Your task to perform on an android device: open app "Facebook Lite" (install if not already installed) and enter user name: "suppers@inbox.com" and password: "downplayed" Image 0: 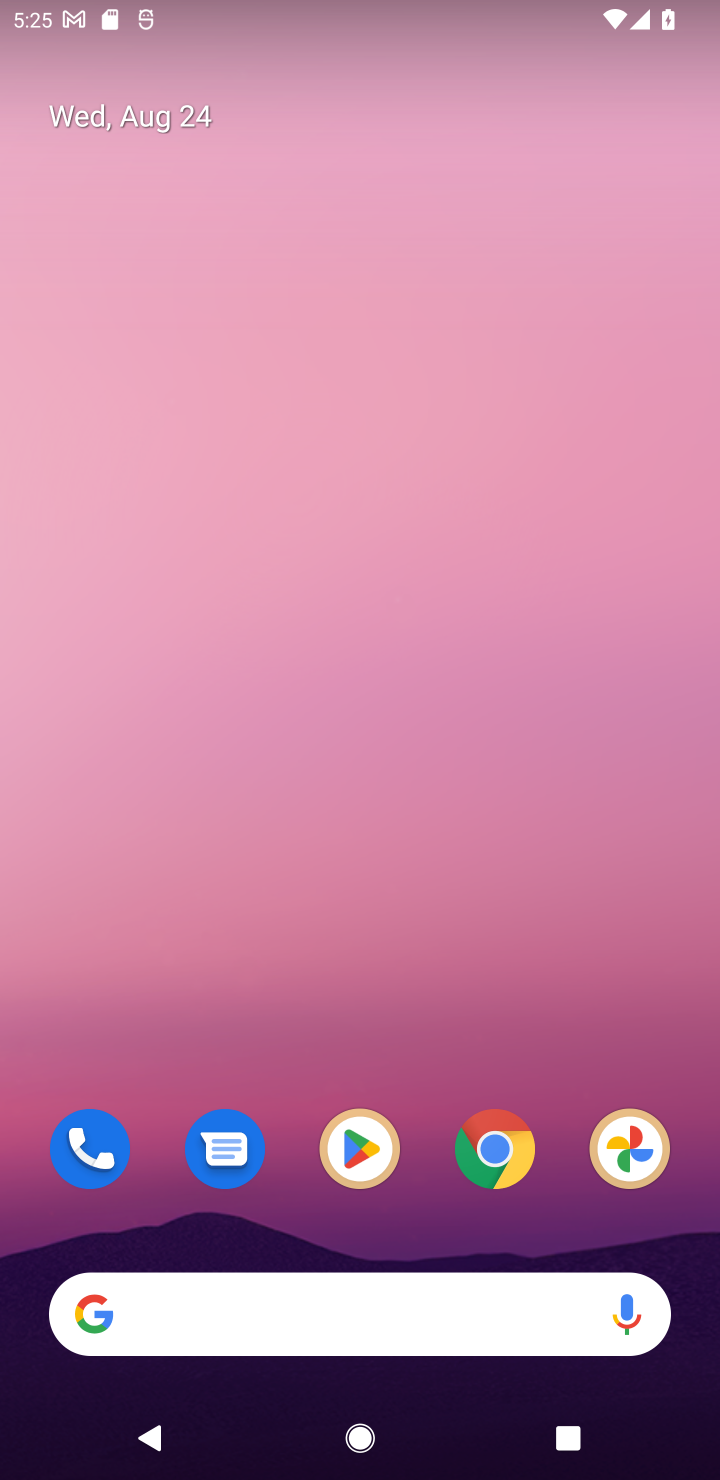
Step 0: press home button
Your task to perform on an android device: open app "Facebook Lite" (install if not already installed) and enter user name: "suppers@inbox.com" and password: "downplayed" Image 1: 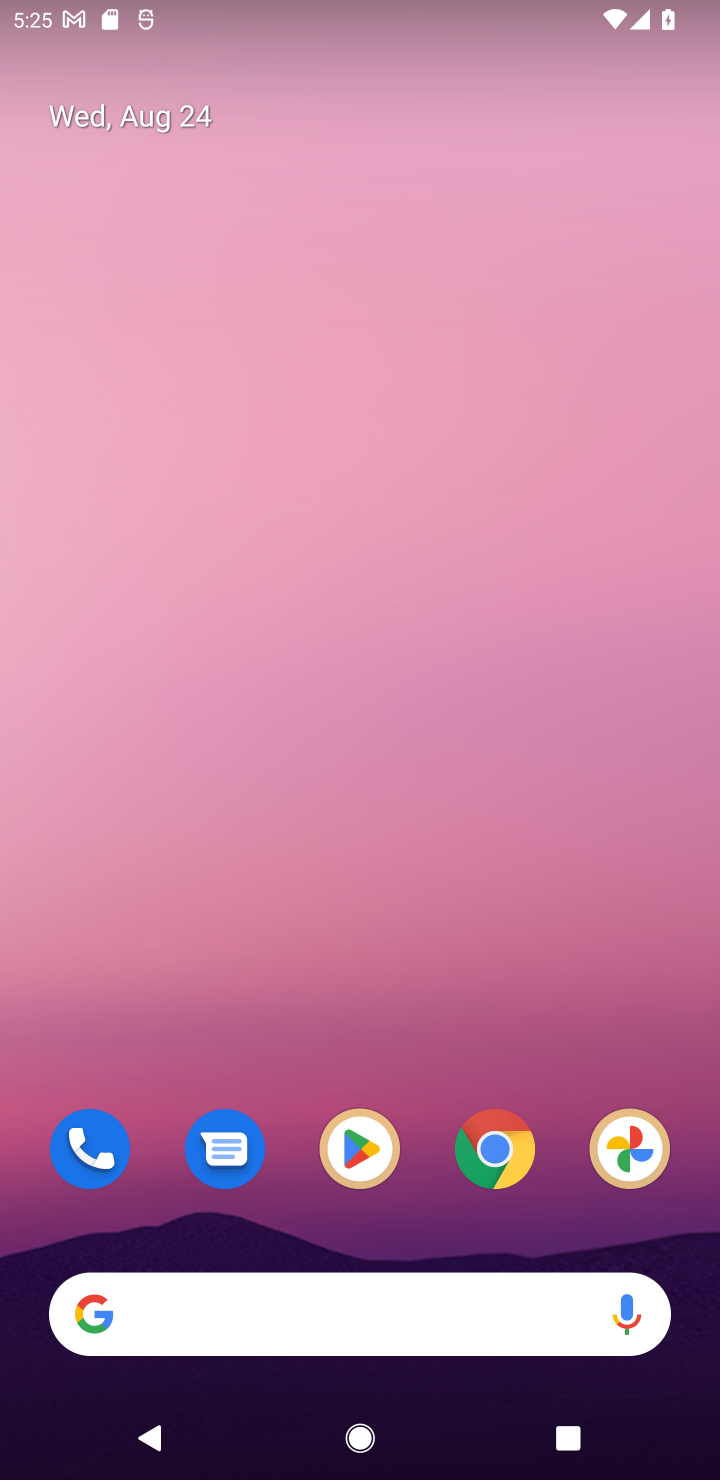
Step 1: click (363, 1155)
Your task to perform on an android device: open app "Facebook Lite" (install if not already installed) and enter user name: "suppers@inbox.com" and password: "downplayed" Image 2: 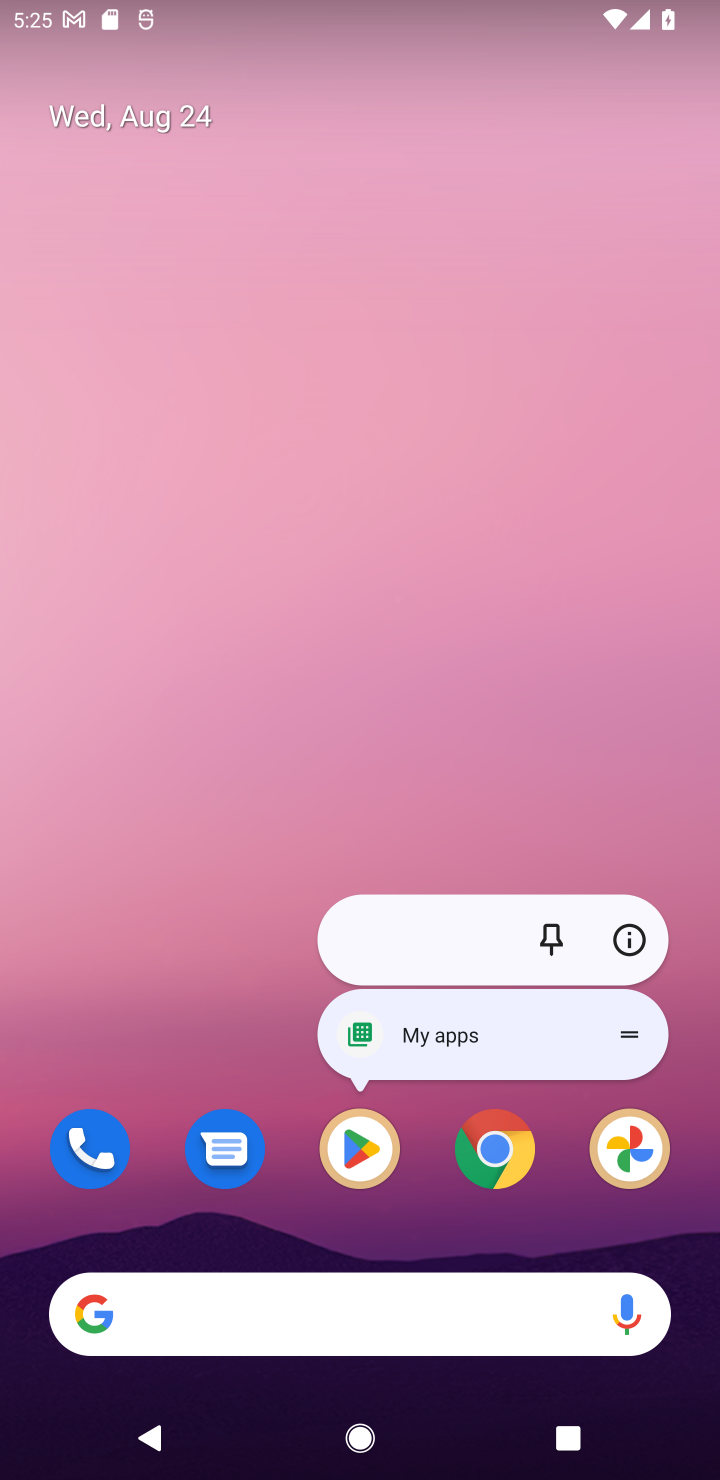
Step 2: click (365, 1150)
Your task to perform on an android device: open app "Facebook Lite" (install if not already installed) and enter user name: "suppers@inbox.com" and password: "downplayed" Image 3: 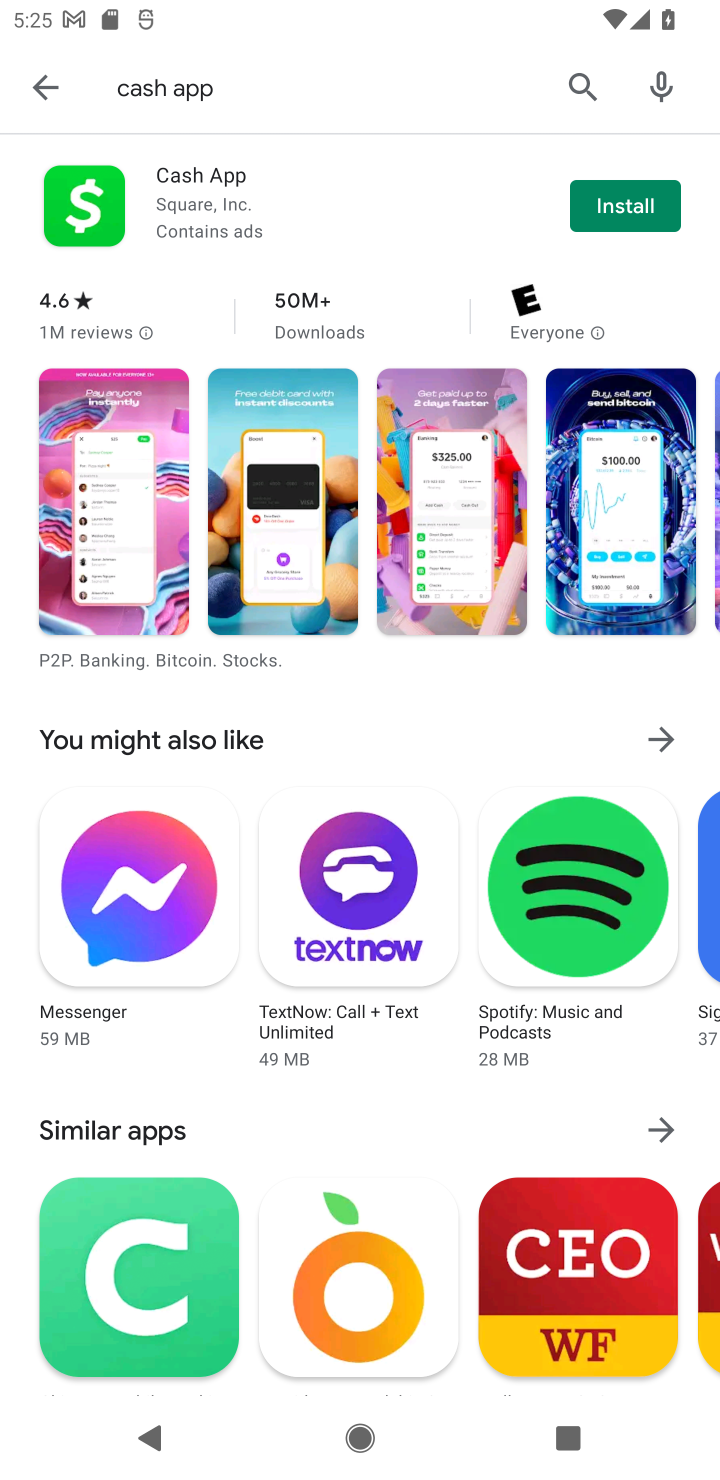
Step 3: click (584, 78)
Your task to perform on an android device: open app "Facebook Lite" (install if not already installed) and enter user name: "suppers@inbox.com" and password: "downplayed" Image 4: 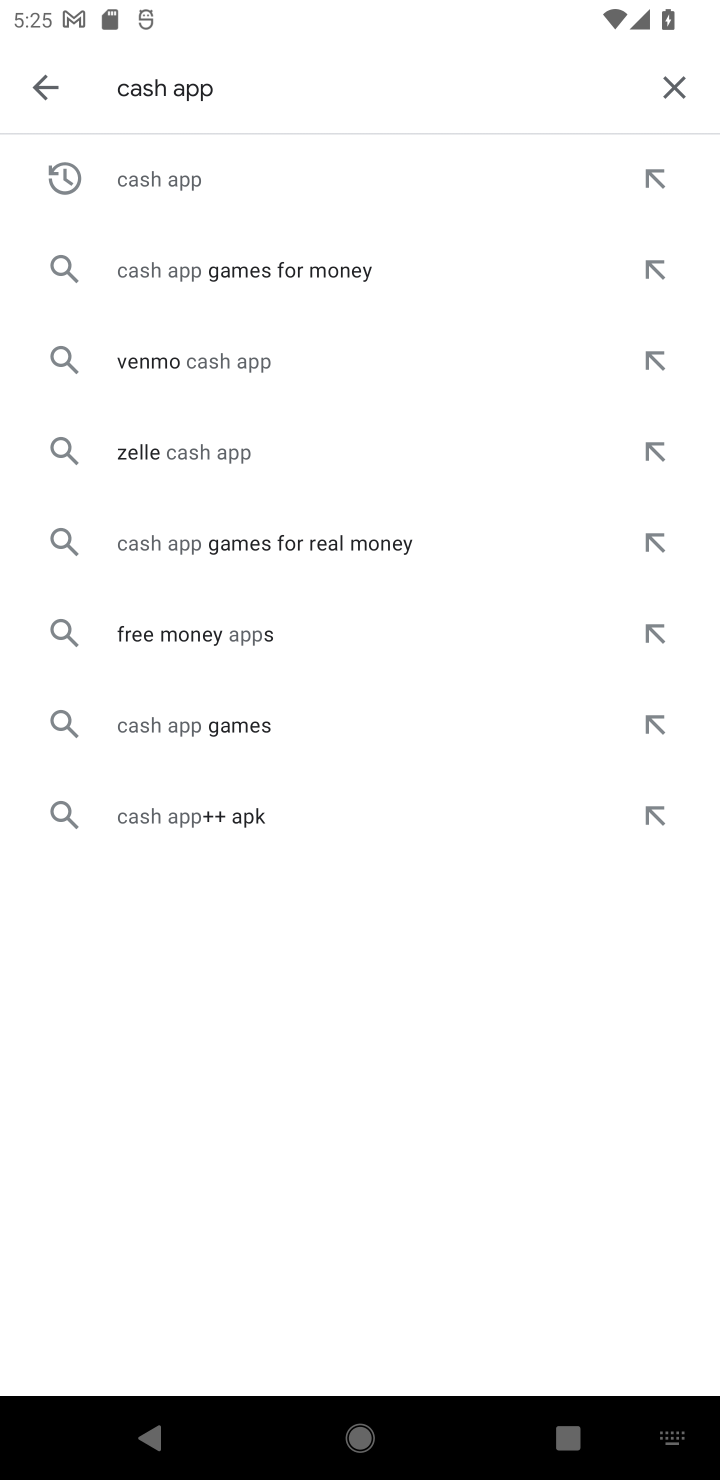
Step 4: click (680, 81)
Your task to perform on an android device: open app "Facebook Lite" (install if not already installed) and enter user name: "suppers@inbox.com" and password: "downplayed" Image 5: 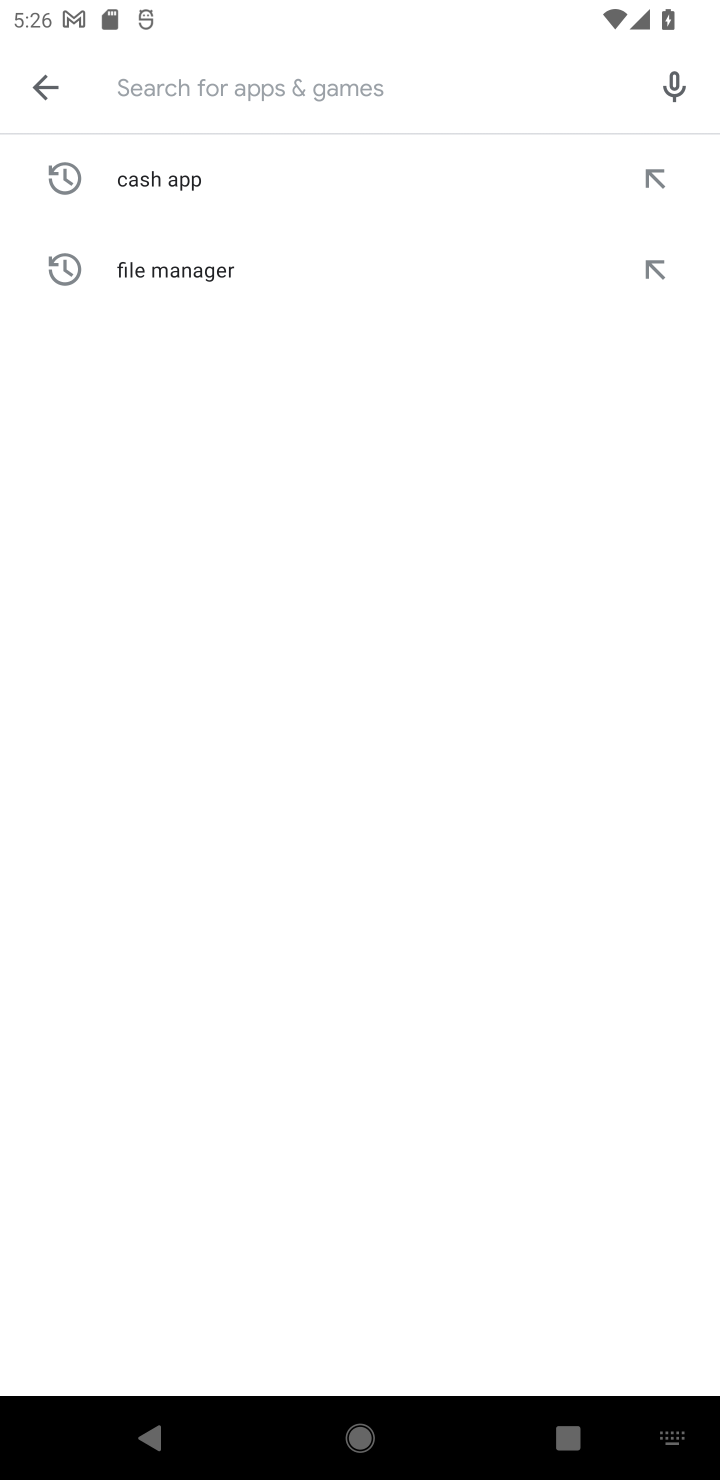
Step 5: type "Facebook Lite"
Your task to perform on an android device: open app "Facebook Lite" (install if not already installed) and enter user name: "suppers@inbox.com" and password: "downplayed" Image 6: 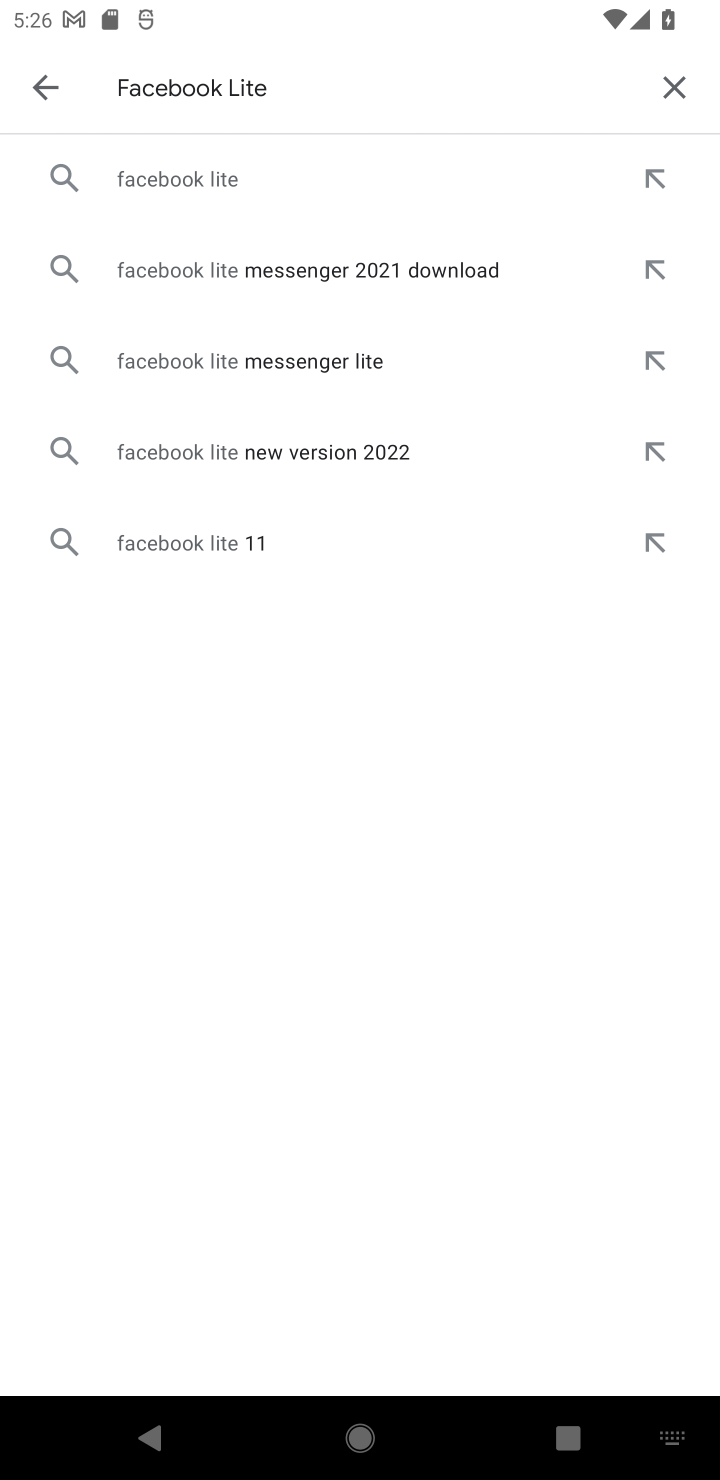
Step 6: click (217, 166)
Your task to perform on an android device: open app "Facebook Lite" (install if not already installed) and enter user name: "suppers@inbox.com" and password: "downplayed" Image 7: 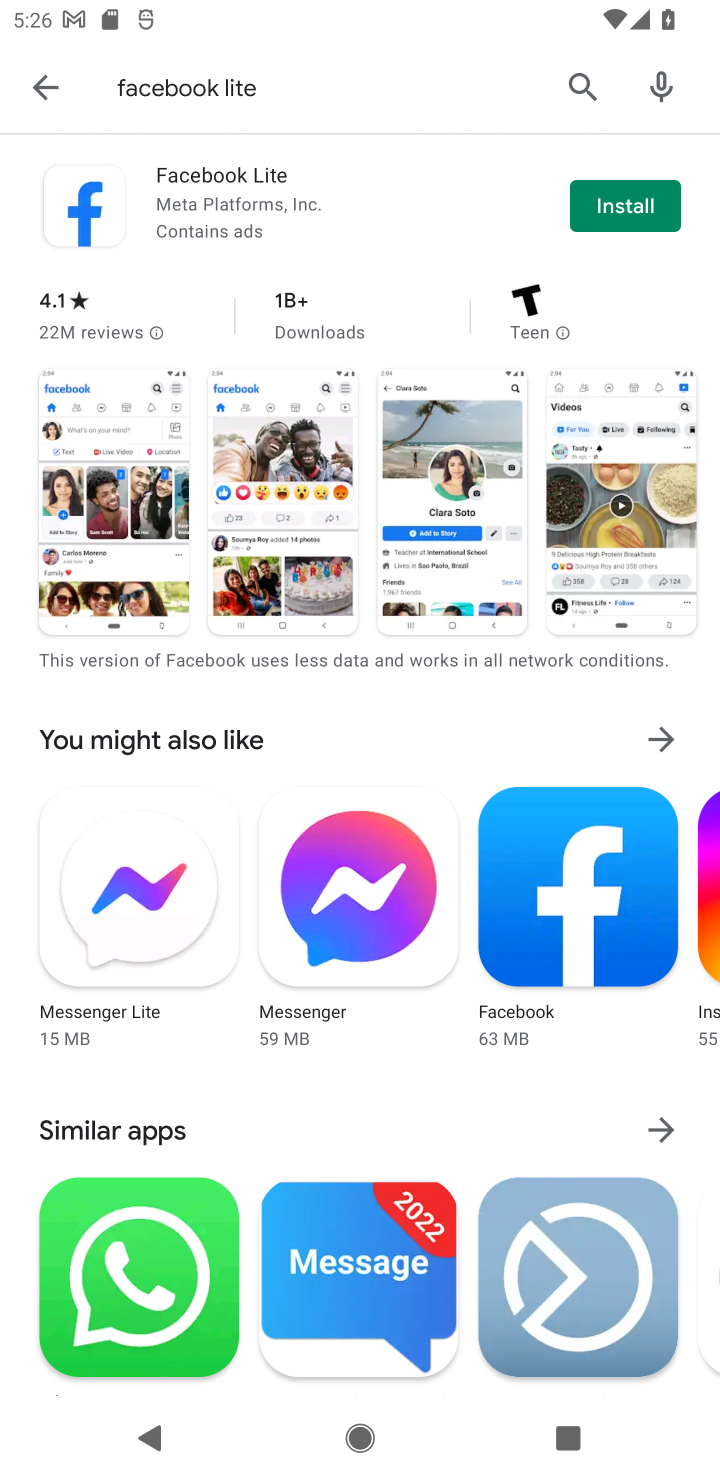
Step 7: click (610, 205)
Your task to perform on an android device: open app "Facebook Lite" (install if not already installed) and enter user name: "suppers@inbox.com" and password: "downplayed" Image 8: 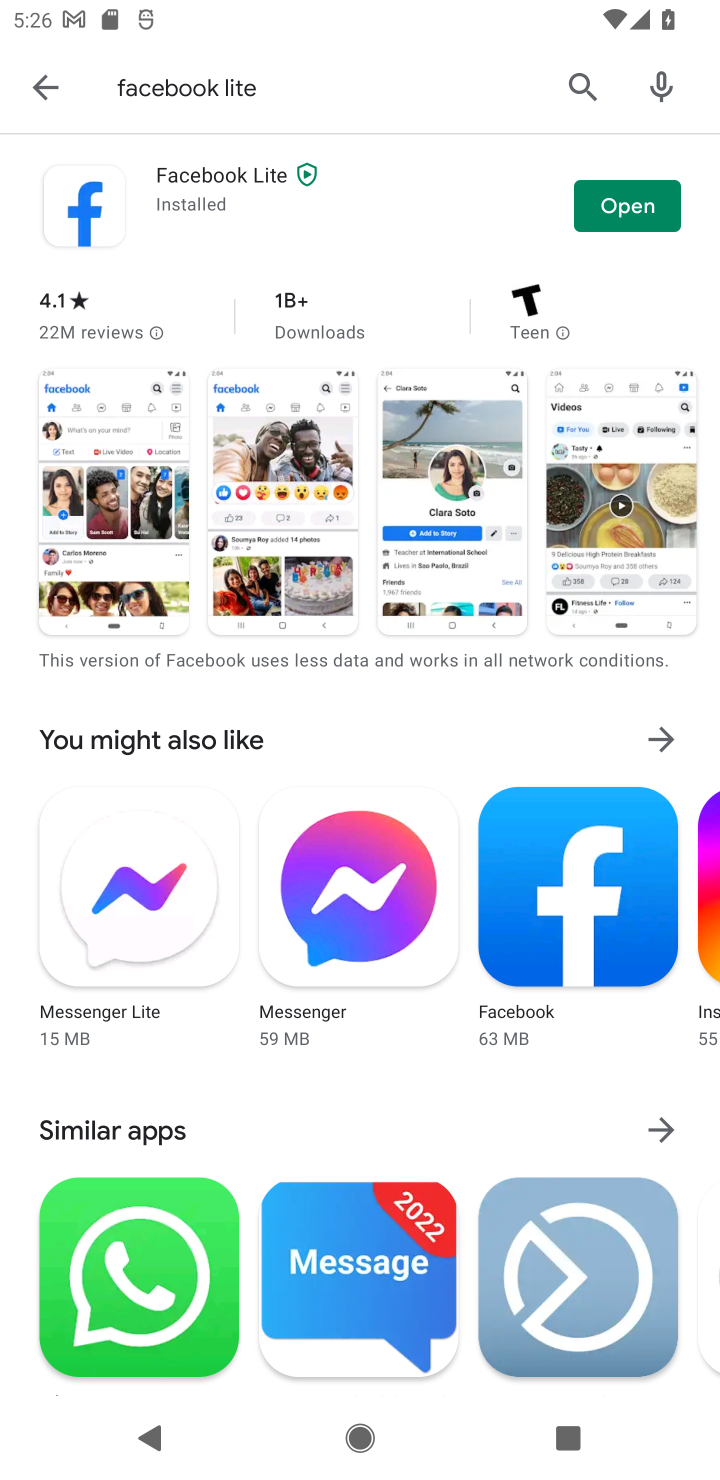
Step 8: click (653, 201)
Your task to perform on an android device: open app "Facebook Lite" (install if not already installed) and enter user name: "suppers@inbox.com" and password: "downplayed" Image 9: 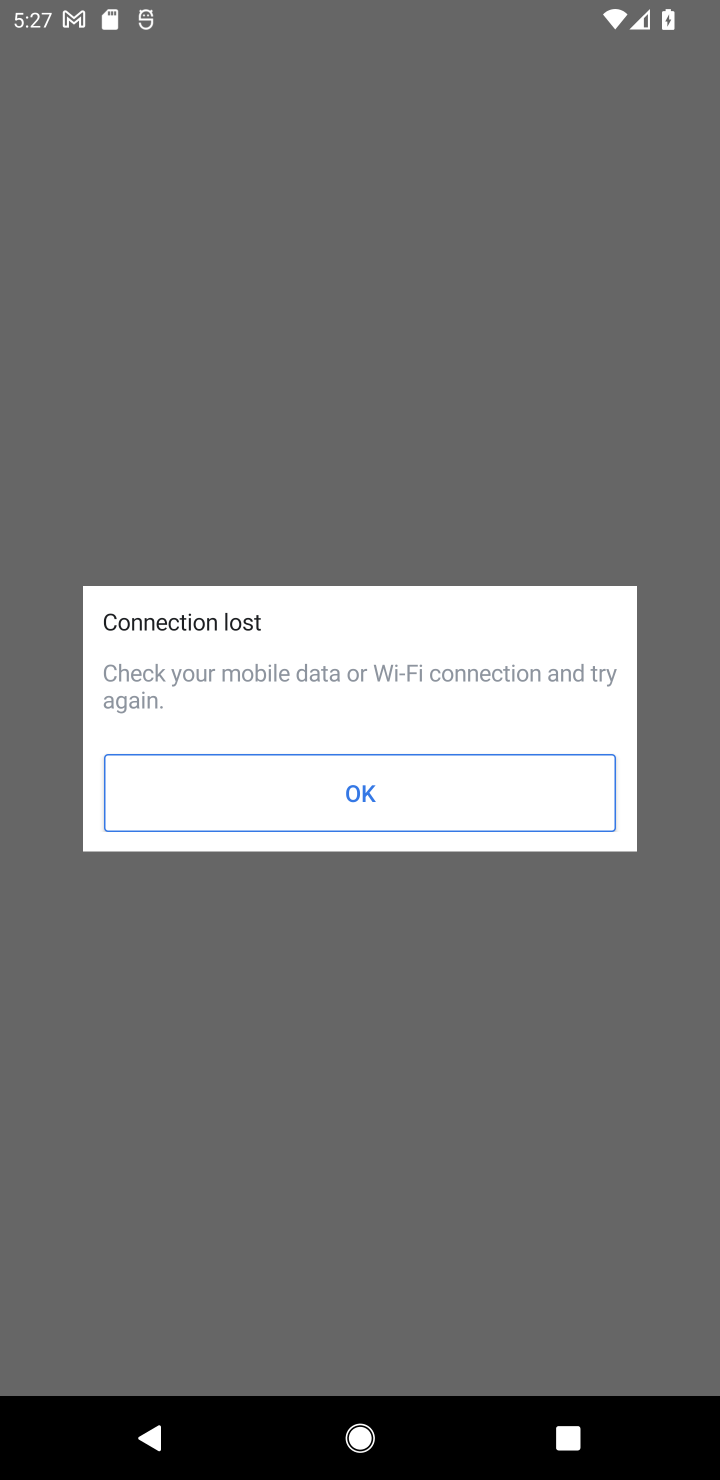
Step 9: task complete